Your task to perform on an android device: Check the news Image 0: 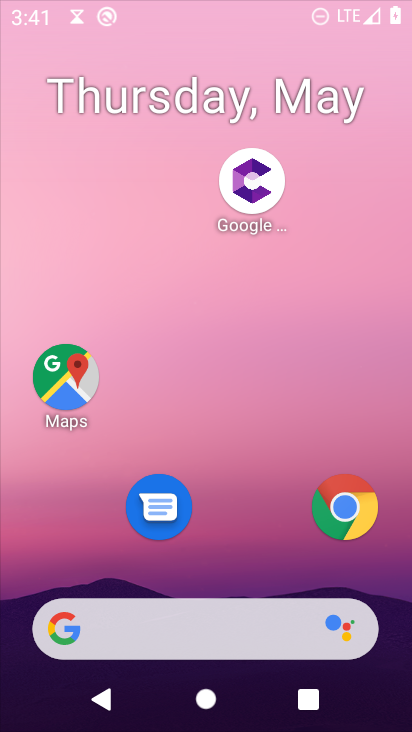
Step 0: press home button
Your task to perform on an android device: Check the news Image 1: 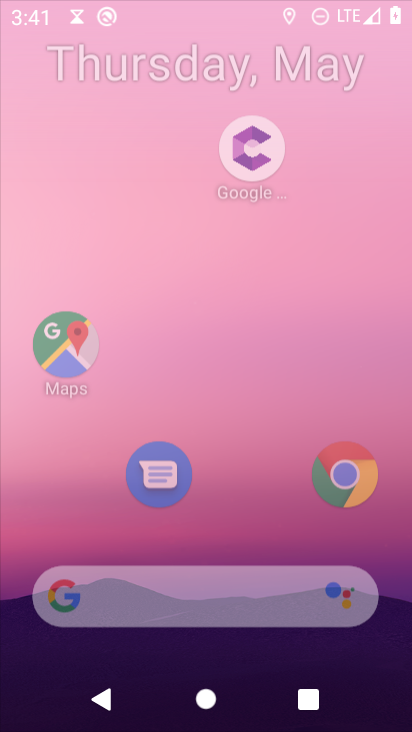
Step 1: click (354, 520)
Your task to perform on an android device: Check the news Image 2: 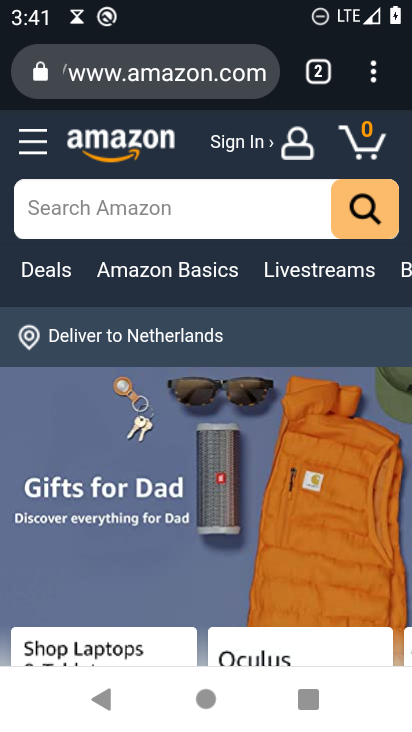
Step 2: press home button
Your task to perform on an android device: Check the news Image 3: 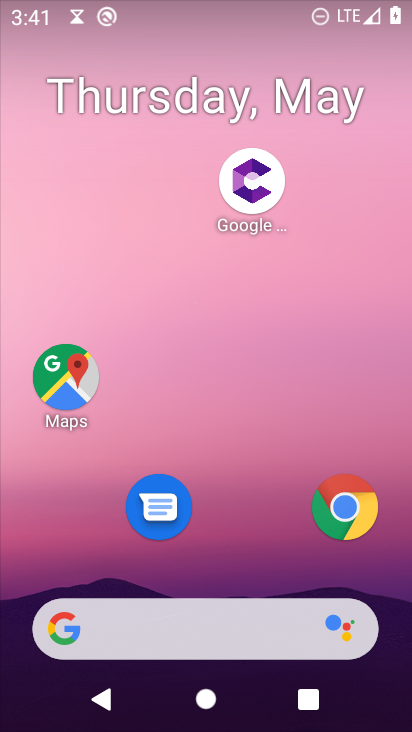
Step 3: click (70, 629)
Your task to perform on an android device: Check the news Image 4: 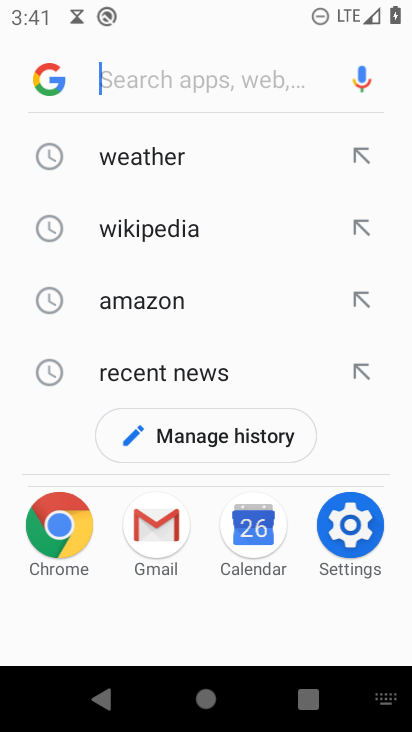
Step 4: type "news"
Your task to perform on an android device: Check the news Image 5: 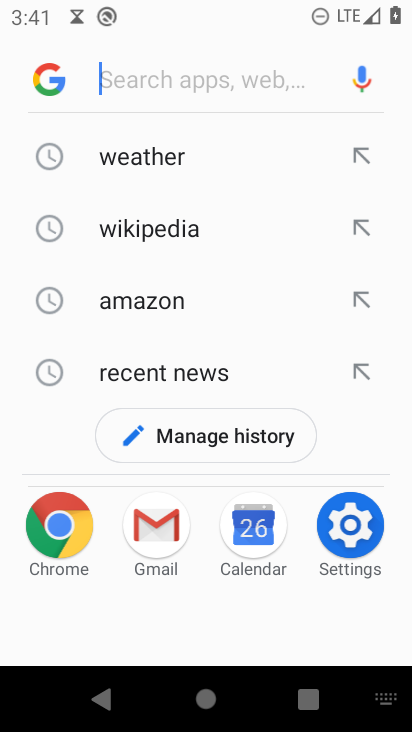
Step 5: click (197, 90)
Your task to perform on an android device: Check the news Image 6: 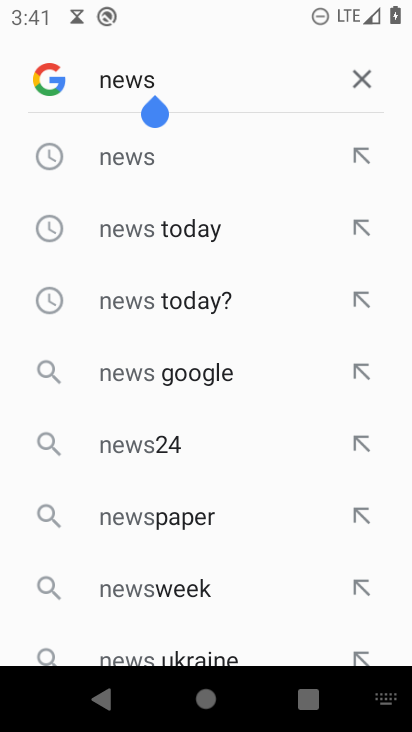
Step 6: click (139, 156)
Your task to perform on an android device: Check the news Image 7: 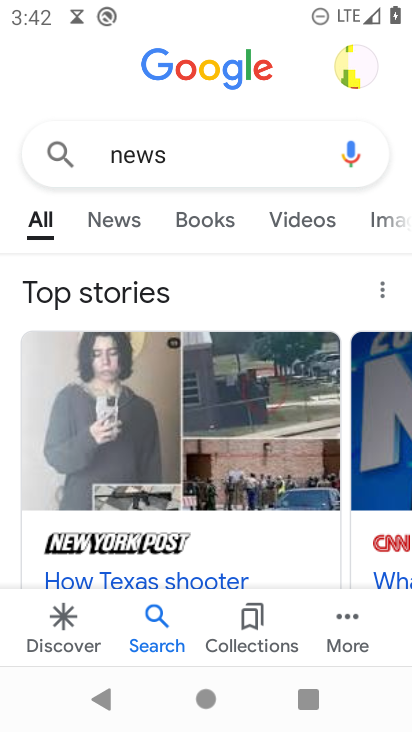
Step 7: task complete